Your task to perform on an android device: change text size in settings app Image 0: 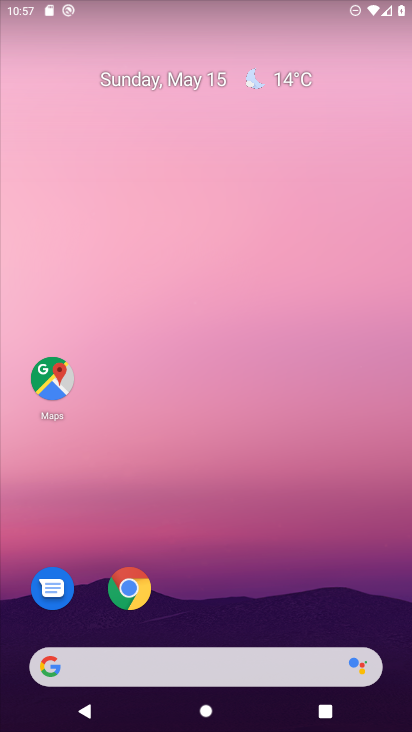
Step 0: drag from (222, 599) to (244, 213)
Your task to perform on an android device: change text size in settings app Image 1: 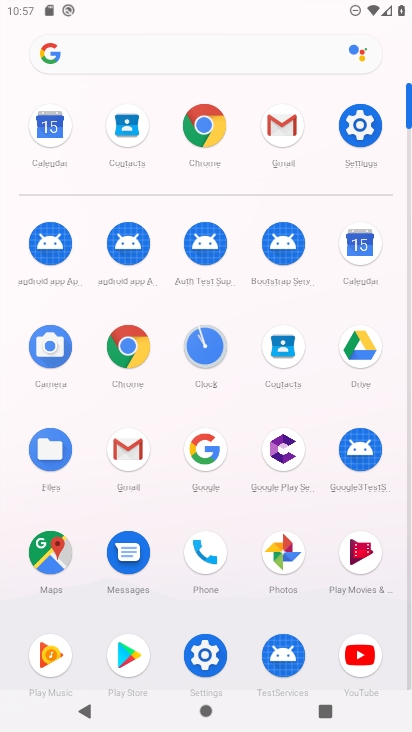
Step 1: click (212, 654)
Your task to perform on an android device: change text size in settings app Image 2: 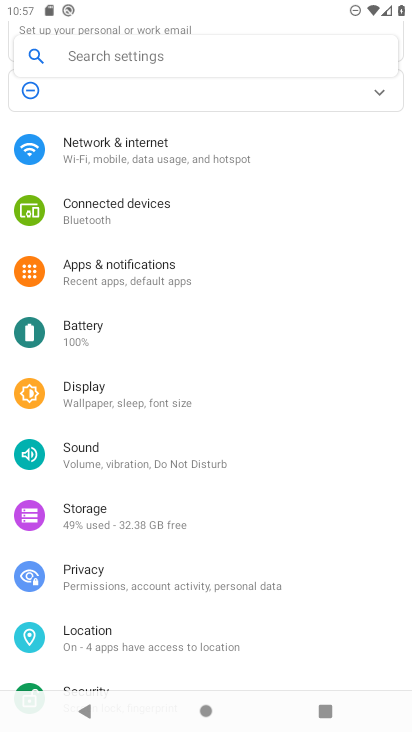
Step 2: click (133, 397)
Your task to perform on an android device: change text size in settings app Image 3: 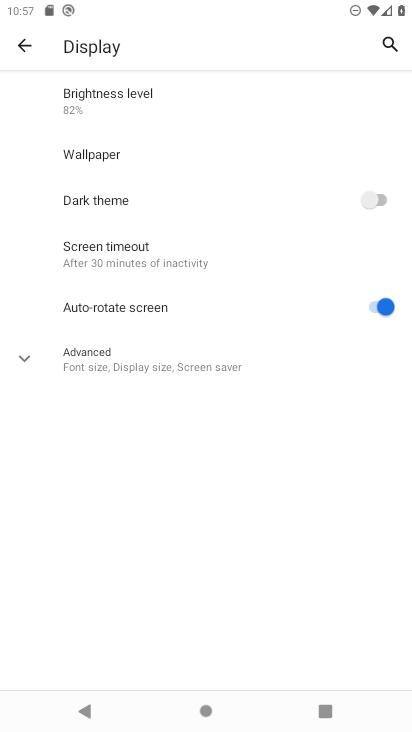
Step 3: click (98, 360)
Your task to perform on an android device: change text size in settings app Image 4: 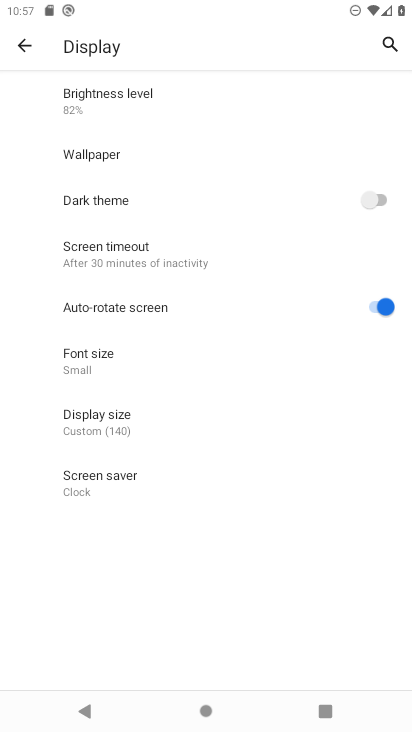
Step 4: click (91, 358)
Your task to perform on an android device: change text size in settings app Image 5: 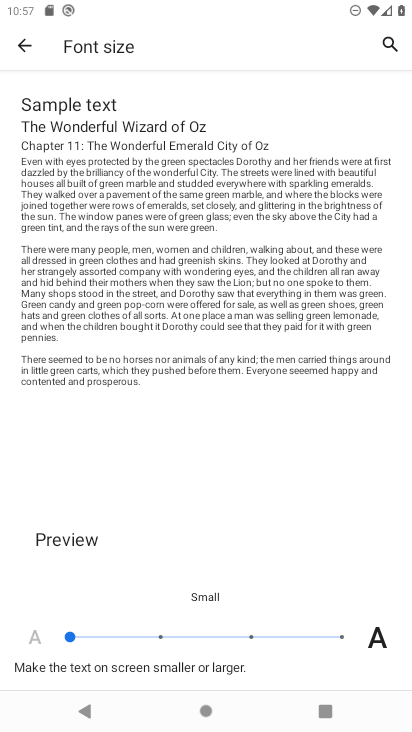
Step 5: click (152, 635)
Your task to perform on an android device: change text size in settings app Image 6: 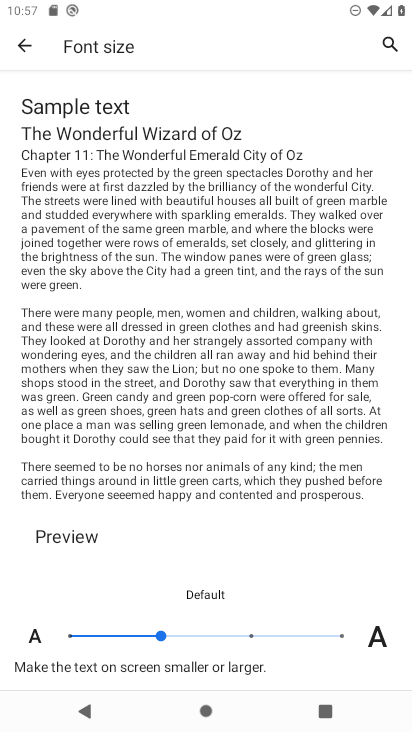
Step 6: task complete